Your task to perform on an android device: Search for sushi restaurants on Maps Image 0: 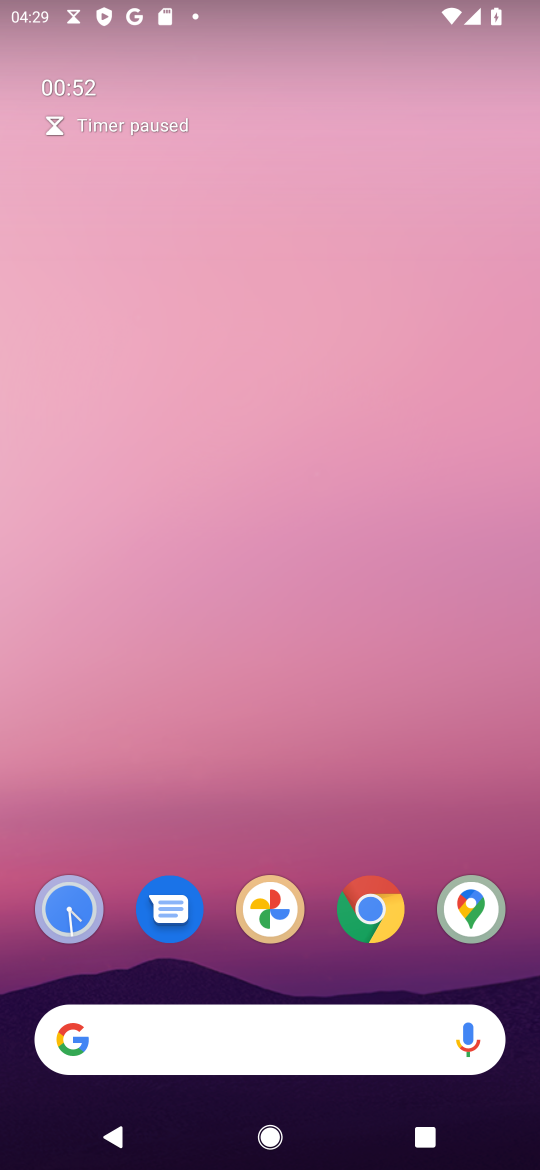
Step 0: drag from (207, 1052) to (381, 403)
Your task to perform on an android device: Search for sushi restaurants on Maps Image 1: 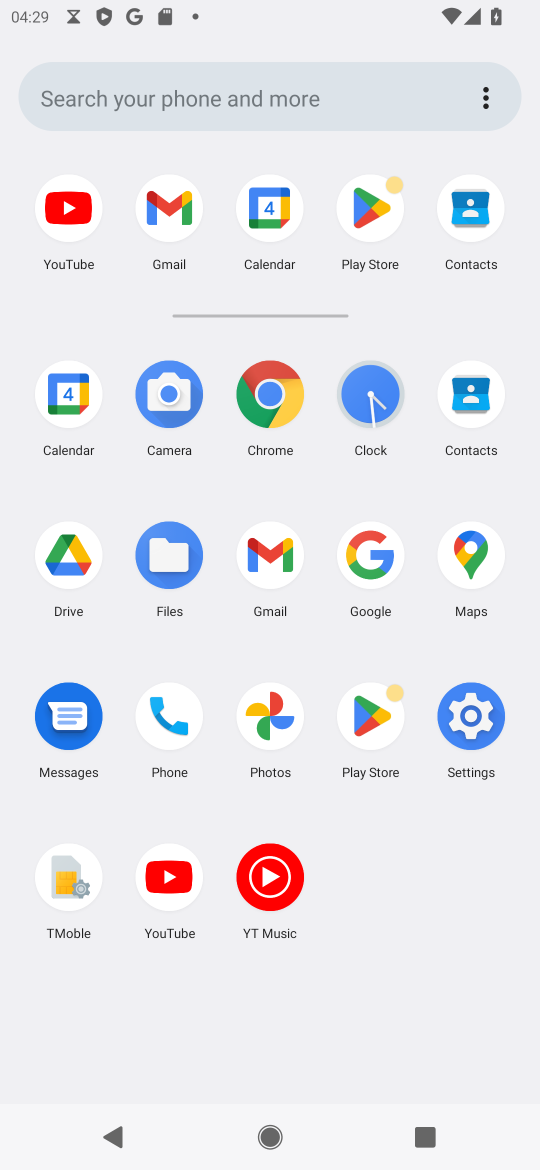
Step 1: click (472, 546)
Your task to perform on an android device: Search for sushi restaurants on Maps Image 2: 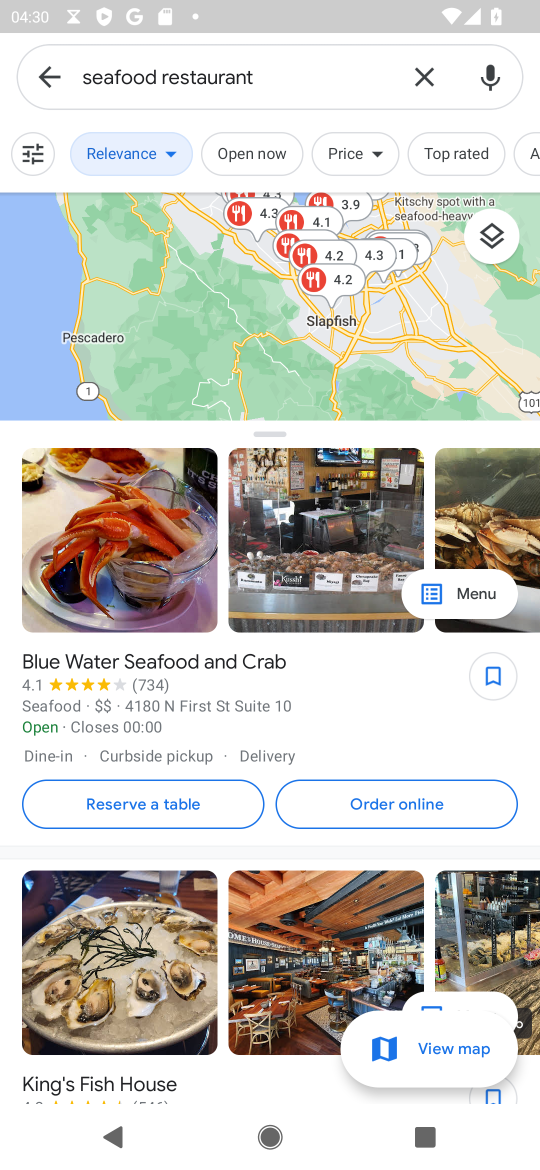
Step 2: click (424, 74)
Your task to perform on an android device: Search for sushi restaurants on Maps Image 3: 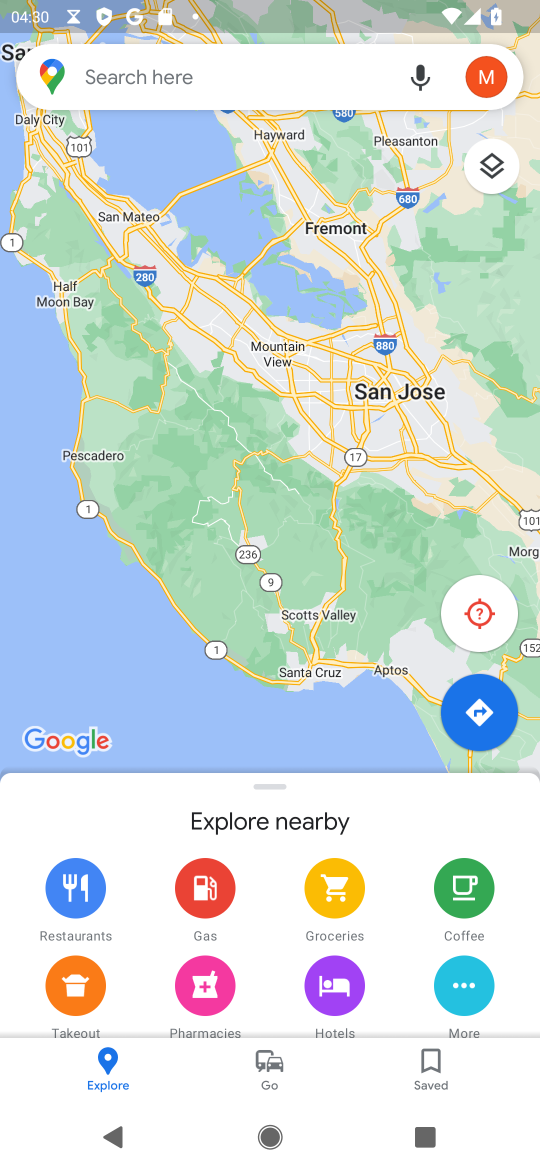
Step 3: click (224, 72)
Your task to perform on an android device: Search for sushi restaurants on Maps Image 4: 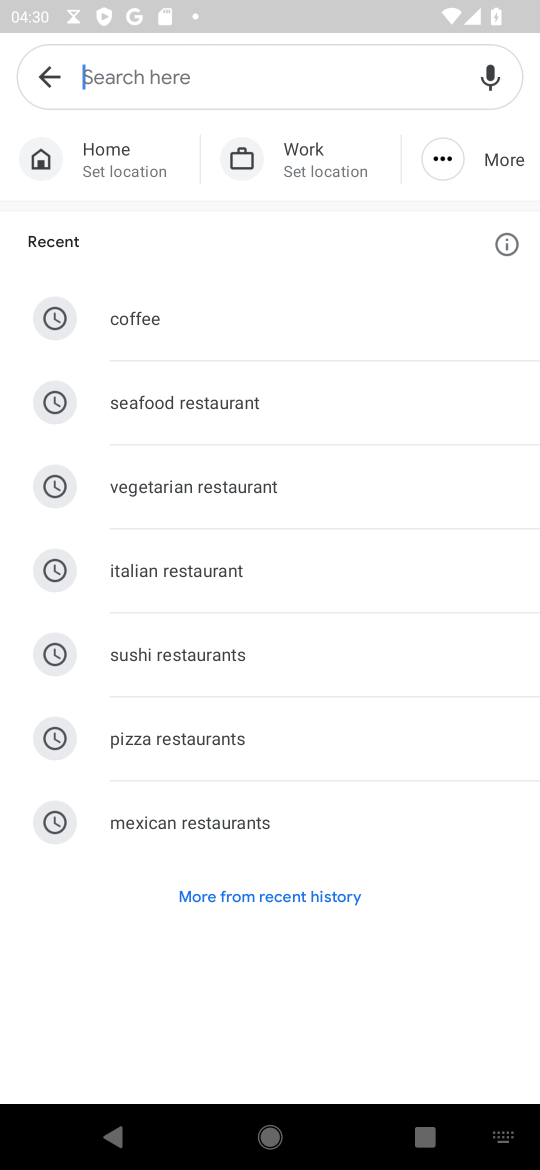
Step 4: click (217, 653)
Your task to perform on an android device: Search for sushi restaurants on Maps Image 5: 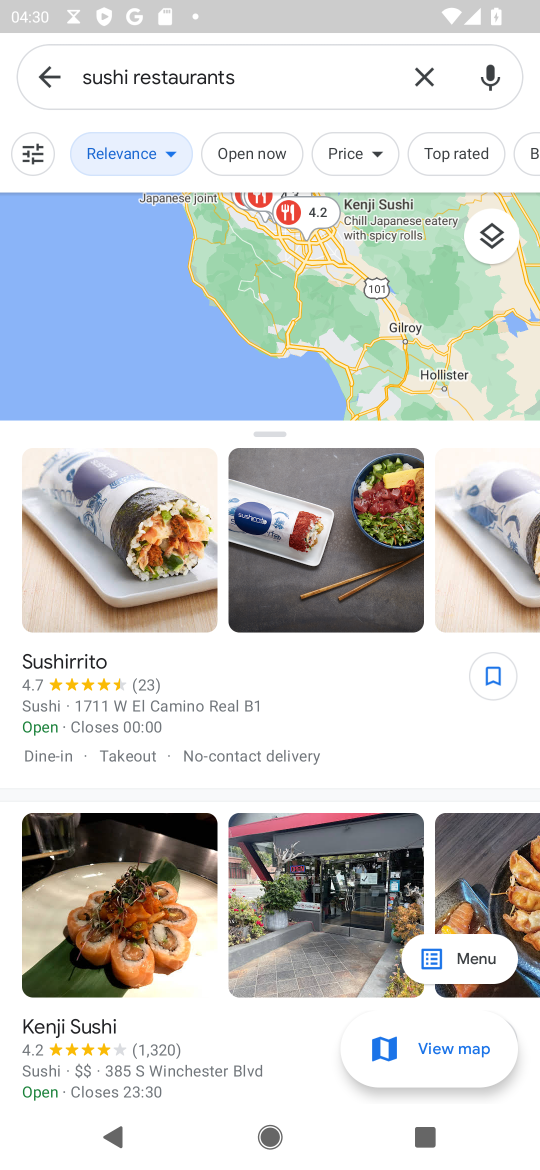
Step 5: task complete